Your task to perform on an android device: open app "TextNow: Call + Text Unlimited" Image 0: 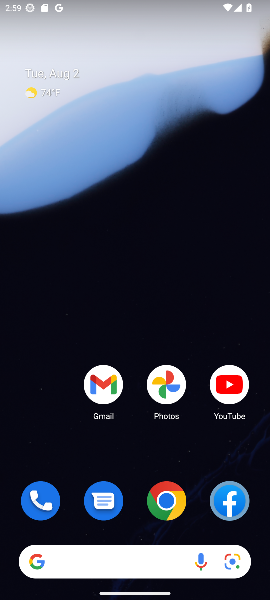
Step 0: drag from (148, 410) to (149, 8)
Your task to perform on an android device: open app "TextNow: Call + Text Unlimited" Image 1: 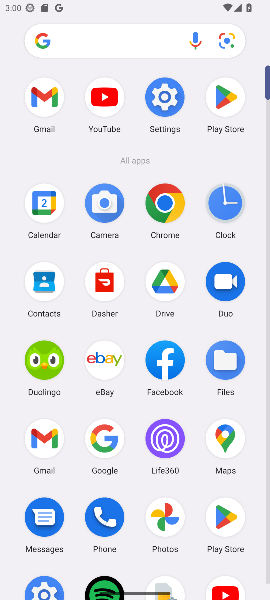
Step 1: click (225, 106)
Your task to perform on an android device: open app "TextNow: Call + Text Unlimited" Image 2: 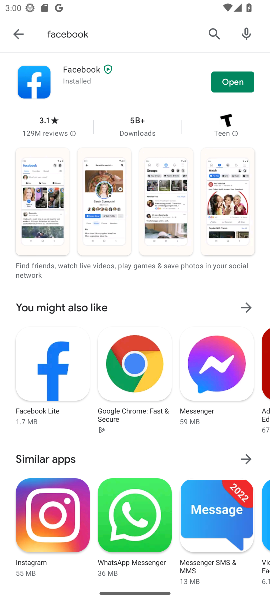
Step 2: click (213, 32)
Your task to perform on an android device: open app "TextNow: Call + Text Unlimited" Image 3: 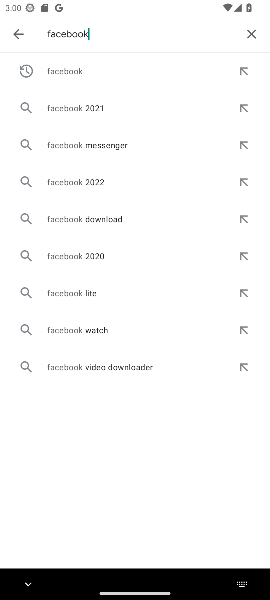
Step 3: click (247, 34)
Your task to perform on an android device: open app "TextNow: Call + Text Unlimited" Image 4: 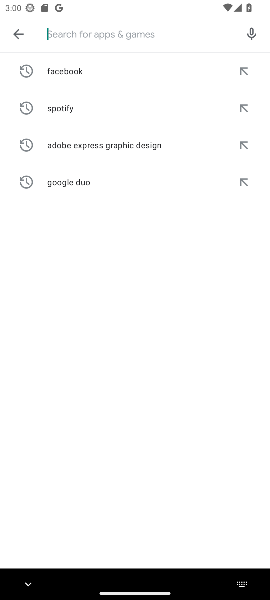
Step 4: type "TextNow: Call + Text Unlimited"
Your task to perform on an android device: open app "TextNow: Call + Text Unlimited" Image 5: 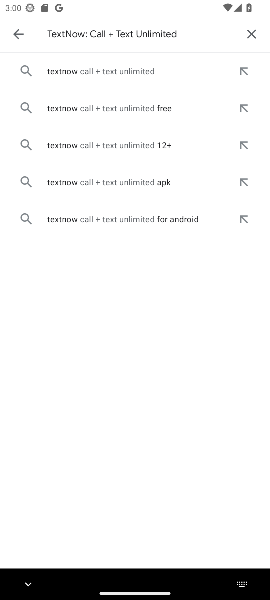
Step 5: click (139, 74)
Your task to perform on an android device: open app "TextNow: Call + Text Unlimited" Image 6: 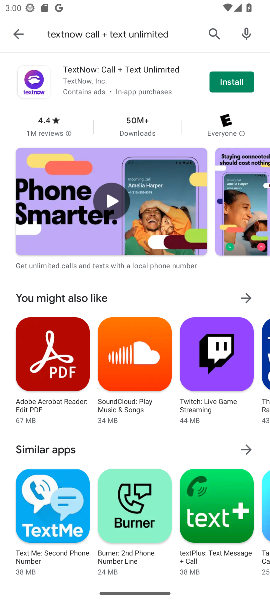
Step 6: task complete